Your task to perform on an android device: Go to ESPN.com Image 0: 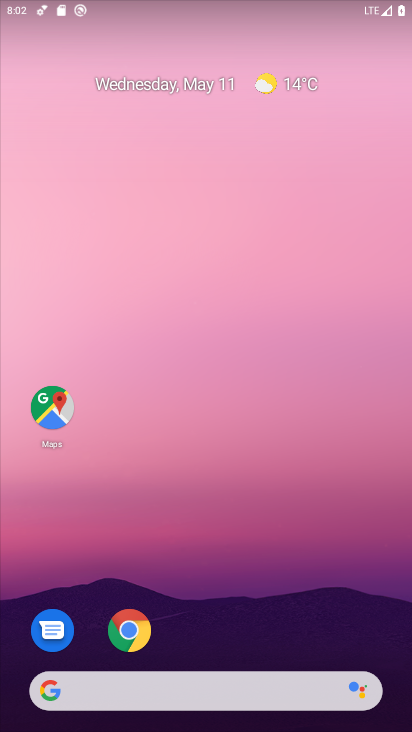
Step 0: click (137, 625)
Your task to perform on an android device: Go to ESPN.com Image 1: 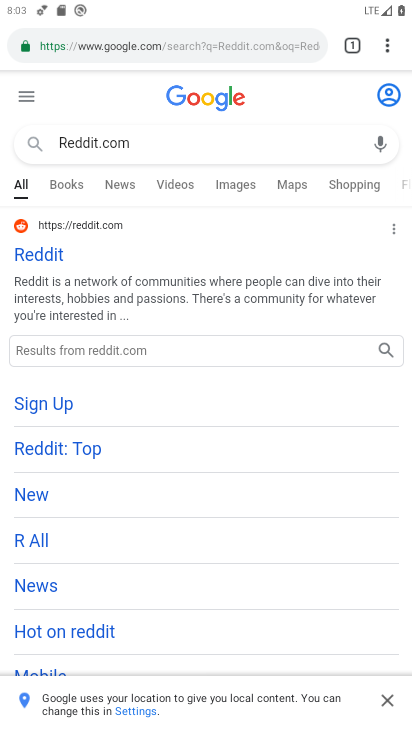
Step 1: press back button
Your task to perform on an android device: Go to ESPN.com Image 2: 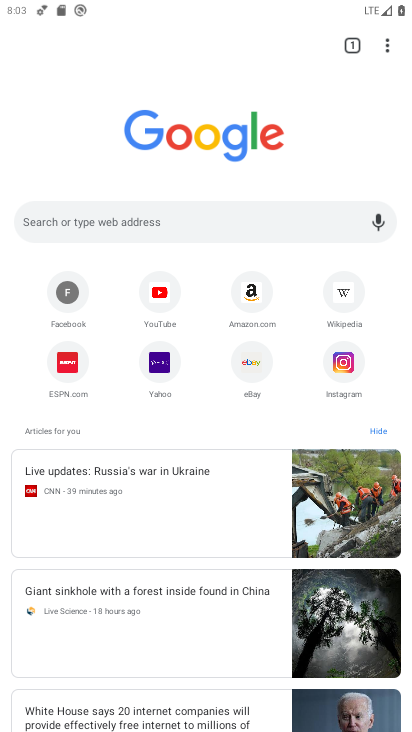
Step 2: click (55, 362)
Your task to perform on an android device: Go to ESPN.com Image 3: 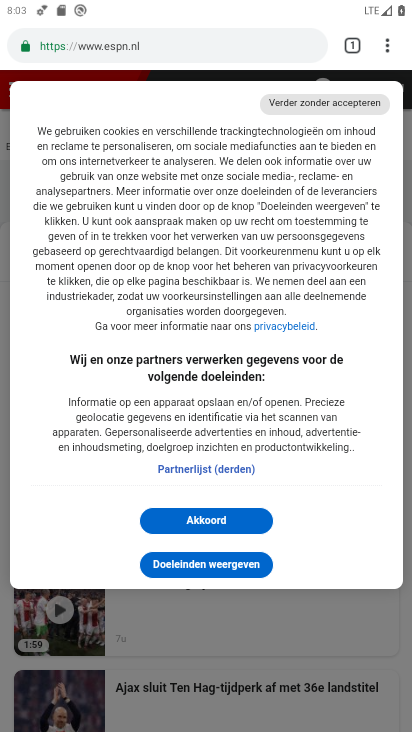
Step 3: click (184, 518)
Your task to perform on an android device: Go to ESPN.com Image 4: 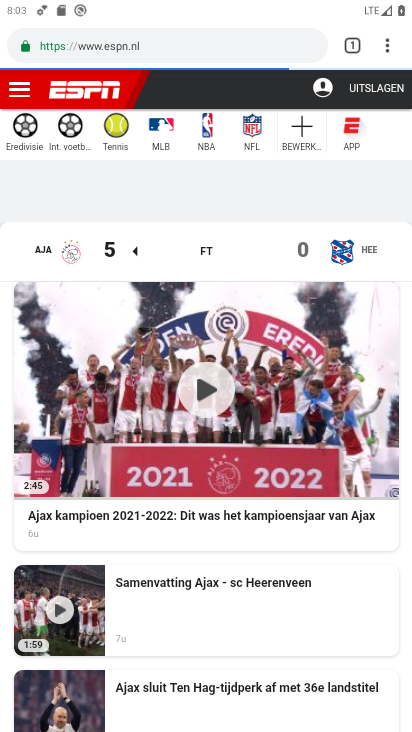
Step 4: task complete